Your task to perform on an android device: Open the Play Movies app and select the watchlist tab. Image 0: 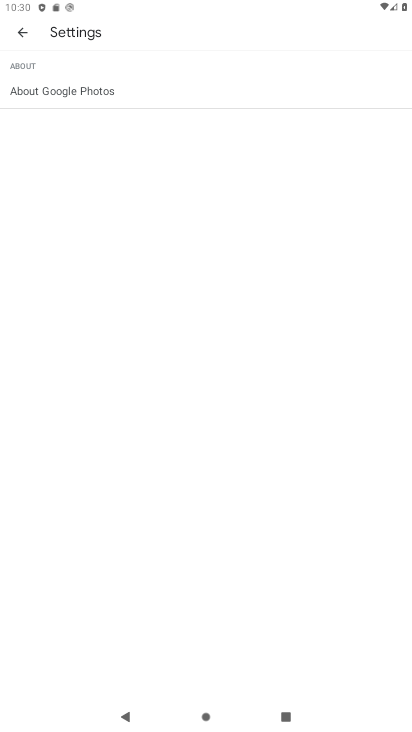
Step 0: press home button
Your task to perform on an android device: Open the Play Movies app and select the watchlist tab. Image 1: 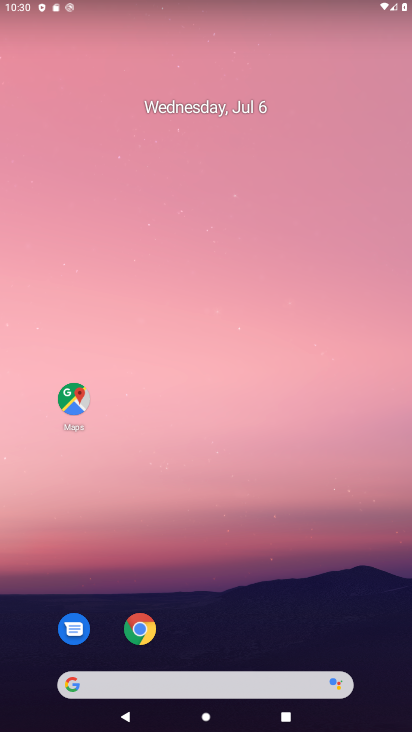
Step 1: drag from (9, 629) to (225, 105)
Your task to perform on an android device: Open the Play Movies app and select the watchlist tab. Image 2: 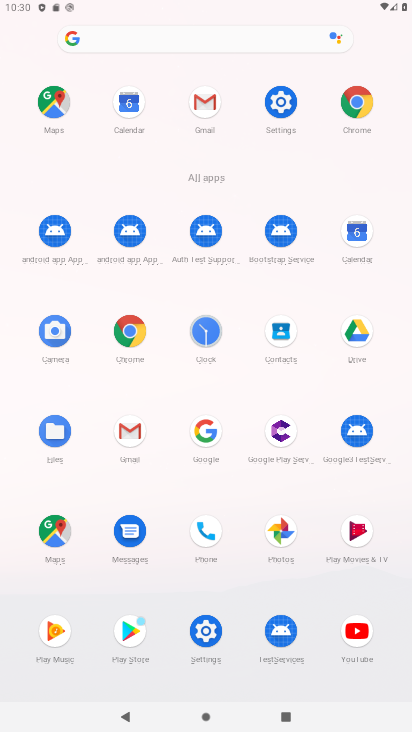
Step 2: click (352, 537)
Your task to perform on an android device: Open the Play Movies app and select the watchlist tab. Image 3: 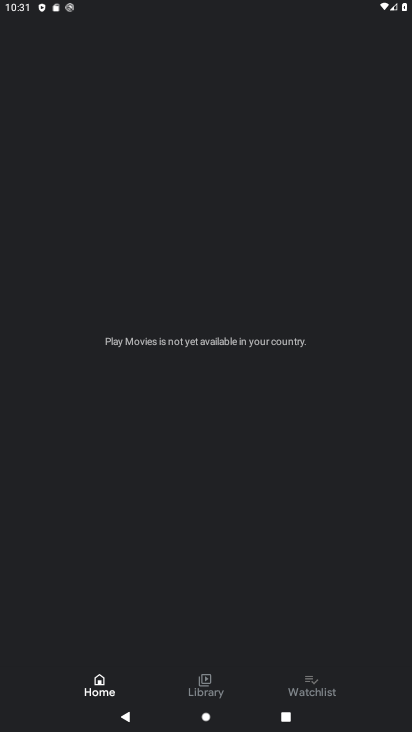
Step 3: click (321, 688)
Your task to perform on an android device: Open the Play Movies app and select the watchlist tab. Image 4: 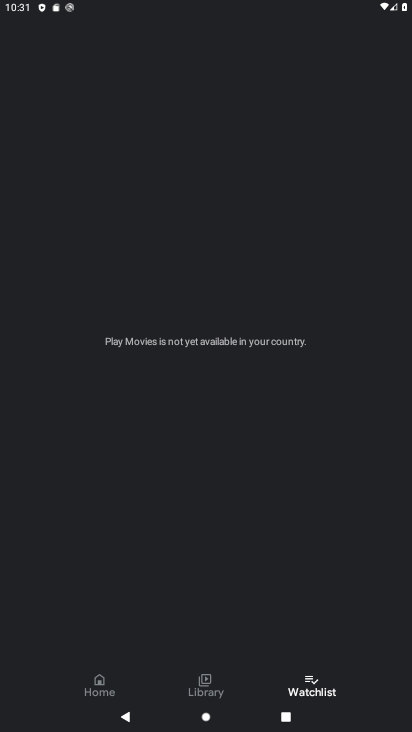
Step 4: task complete